Your task to perform on an android device: turn on the 12-hour format for clock Image 0: 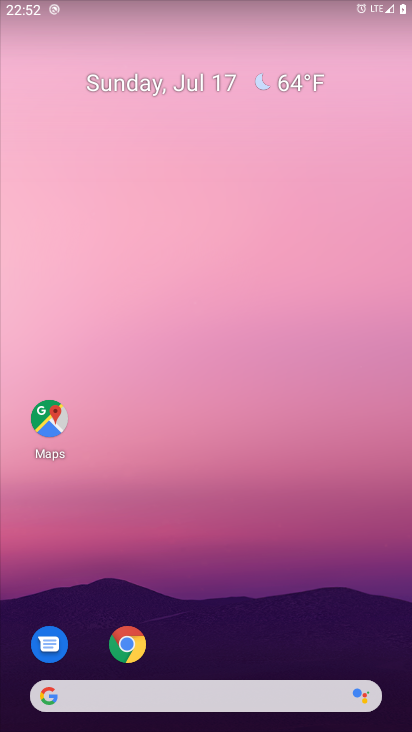
Step 0: press home button
Your task to perform on an android device: turn on the 12-hour format for clock Image 1: 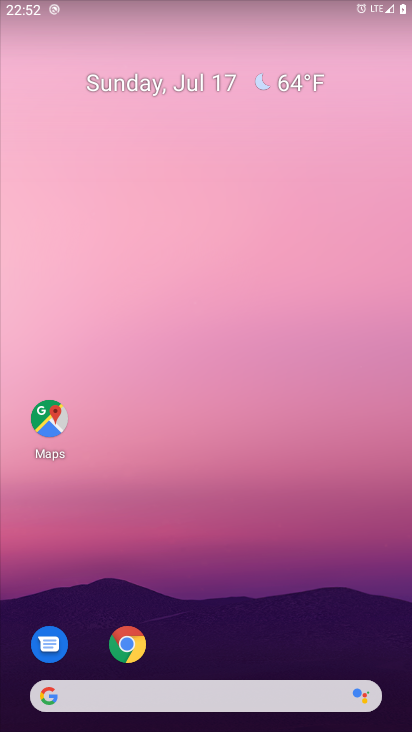
Step 1: drag from (262, 629) to (206, 43)
Your task to perform on an android device: turn on the 12-hour format for clock Image 2: 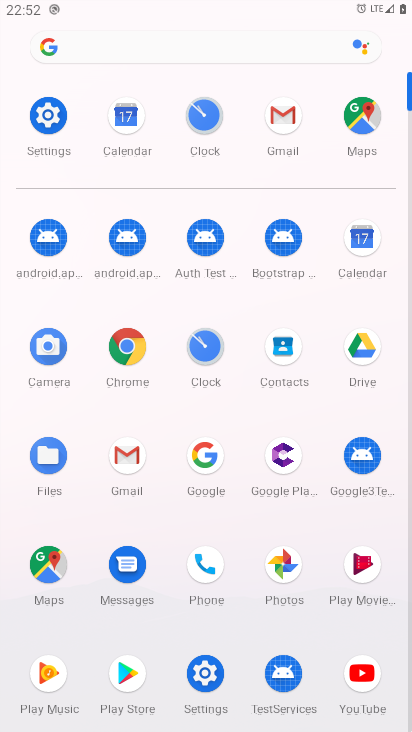
Step 2: click (48, 123)
Your task to perform on an android device: turn on the 12-hour format for clock Image 3: 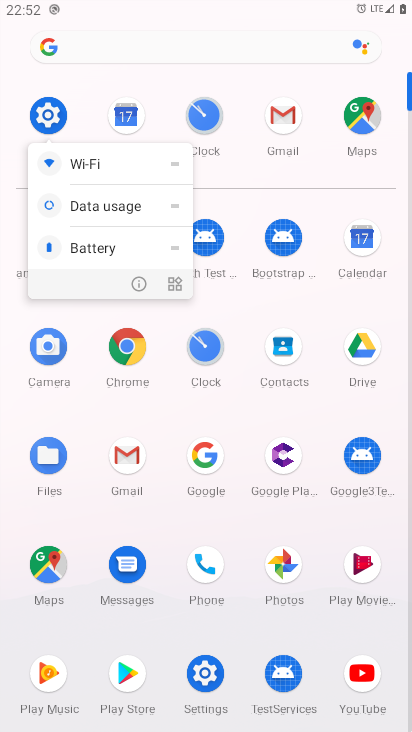
Step 3: click (53, 113)
Your task to perform on an android device: turn on the 12-hour format for clock Image 4: 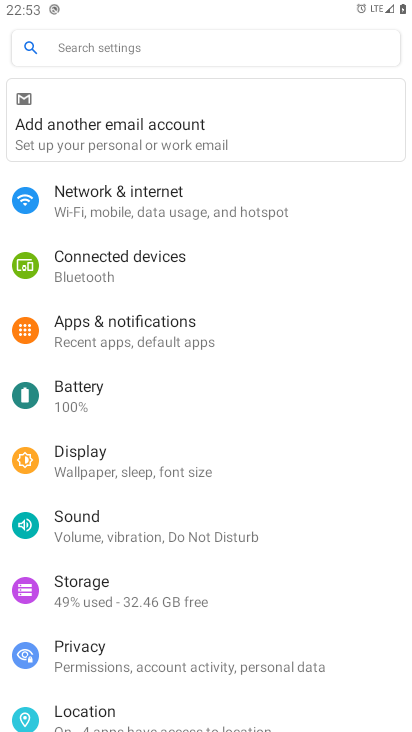
Step 4: drag from (218, 689) to (256, 208)
Your task to perform on an android device: turn on the 12-hour format for clock Image 5: 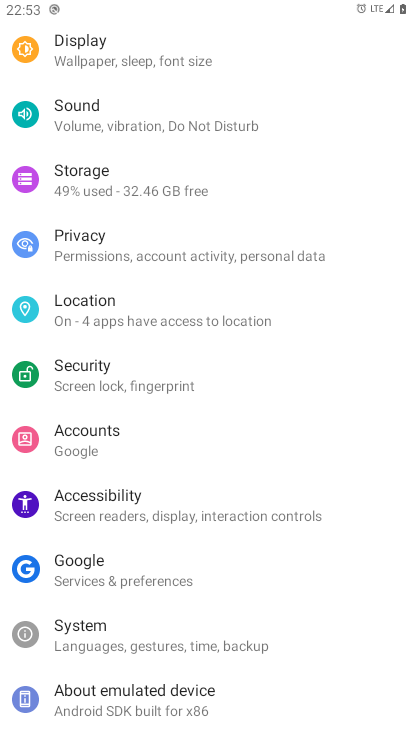
Step 5: click (185, 654)
Your task to perform on an android device: turn on the 12-hour format for clock Image 6: 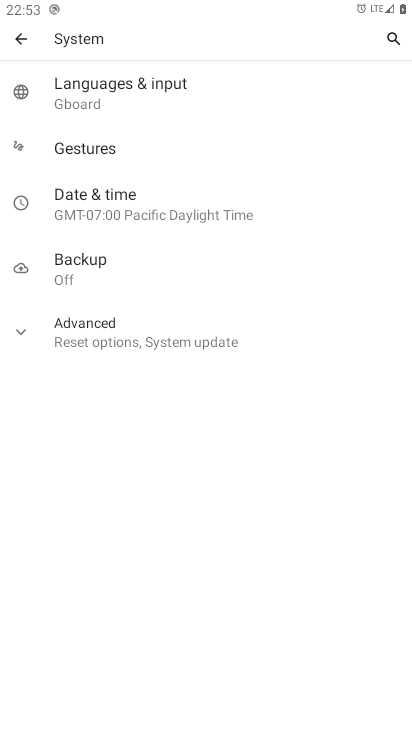
Step 6: click (101, 197)
Your task to perform on an android device: turn on the 12-hour format for clock Image 7: 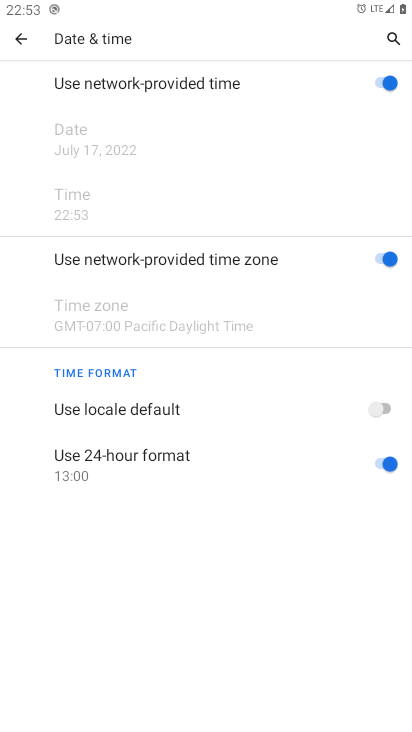
Step 7: click (389, 459)
Your task to perform on an android device: turn on the 12-hour format for clock Image 8: 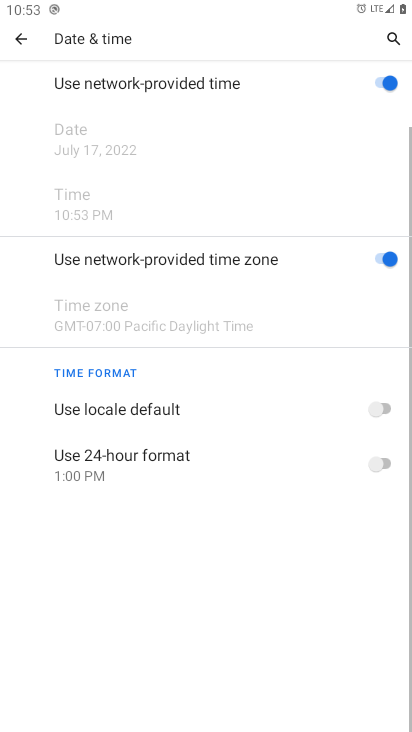
Step 8: click (384, 408)
Your task to perform on an android device: turn on the 12-hour format for clock Image 9: 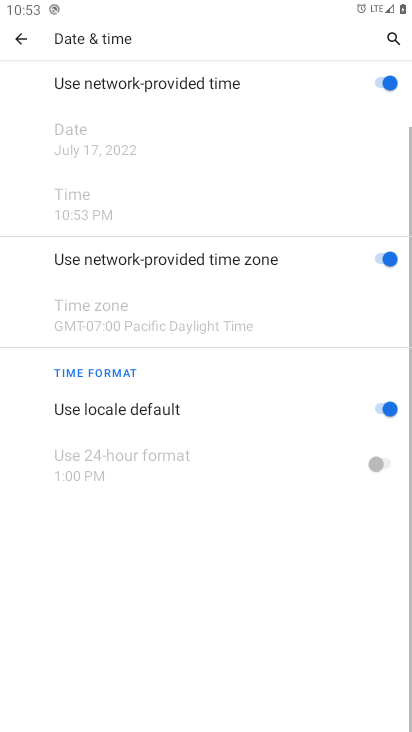
Step 9: task complete